Your task to perform on an android device: Open Google Chrome and open the bookmarks view Image 0: 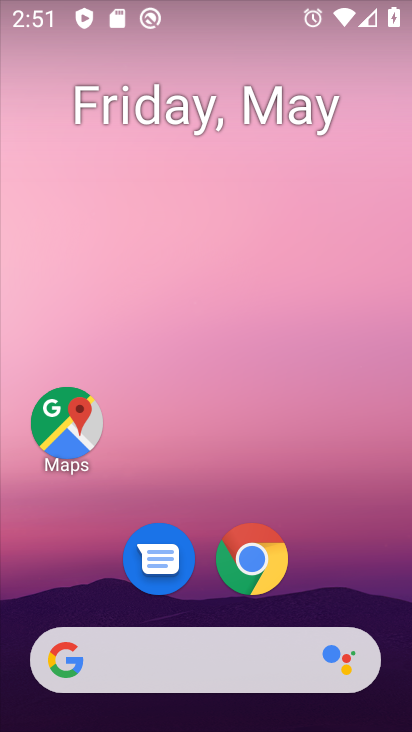
Step 0: click (270, 570)
Your task to perform on an android device: Open Google Chrome and open the bookmarks view Image 1: 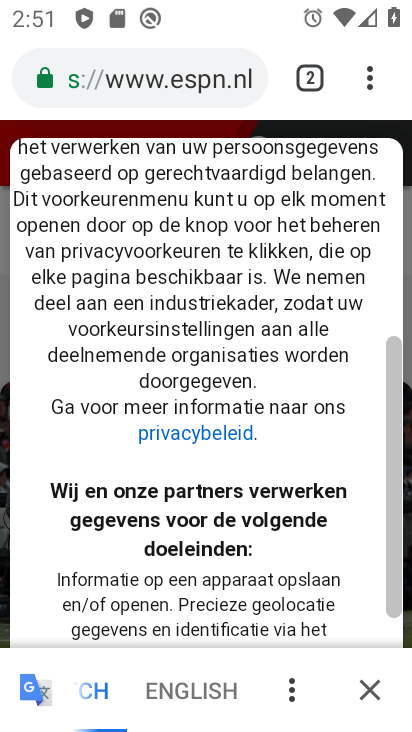
Step 1: click (363, 85)
Your task to perform on an android device: Open Google Chrome and open the bookmarks view Image 2: 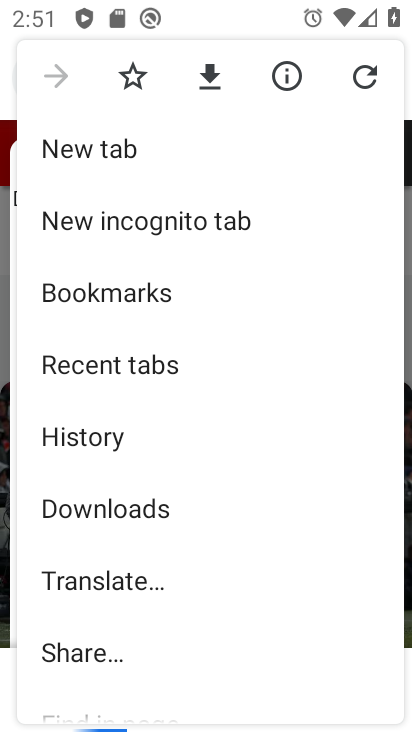
Step 2: drag from (262, 620) to (238, 312)
Your task to perform on an android device: Open Google Chrome and open the bookmarks view Image 3: 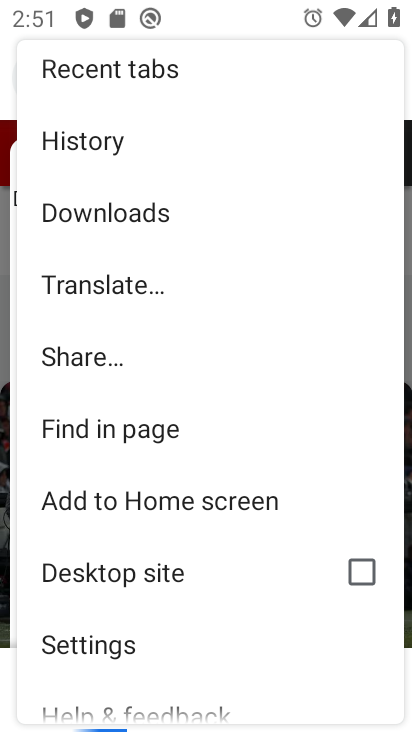
Step 3: drag from (140, 622) to (126, 378)
Your task to perform on an android device: Open Google Chrome and open the bookmarks view Image 4: 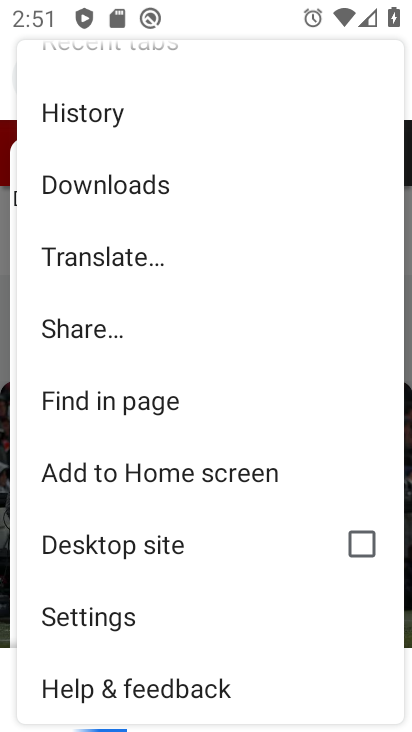
Step 4: click (132, 618)
Your task to perform on an android device: Open Google Chrome and open the bookmarks view Image 5: 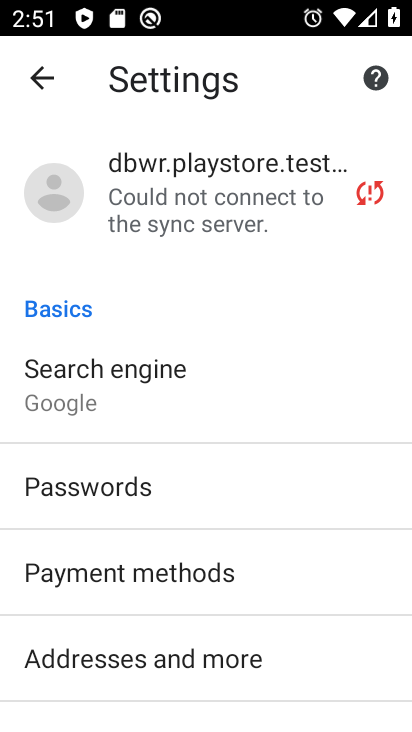
Step 5: task complete